Your task to perform on an android device: move a message to another label in the gmail app Image 0: 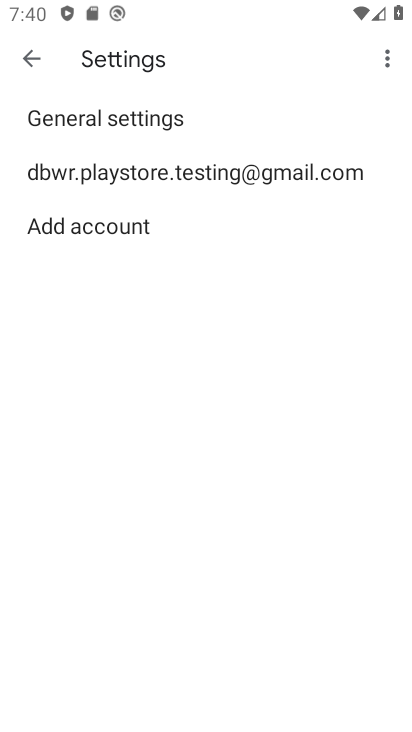
Step 0: click (36, 55)
Your task to perform on an android device: move a message to another label in the gmail app Image 1: 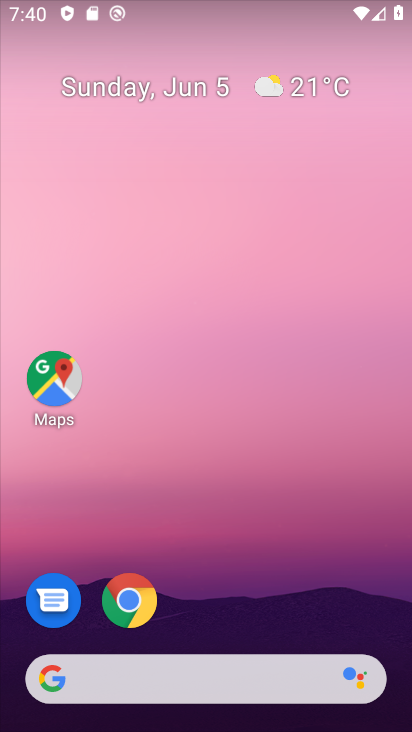
Step 1: drag from (259, 522) to (326, 14)
Your task to perform on an android device: move a message to another label in the gmail app Image 2: 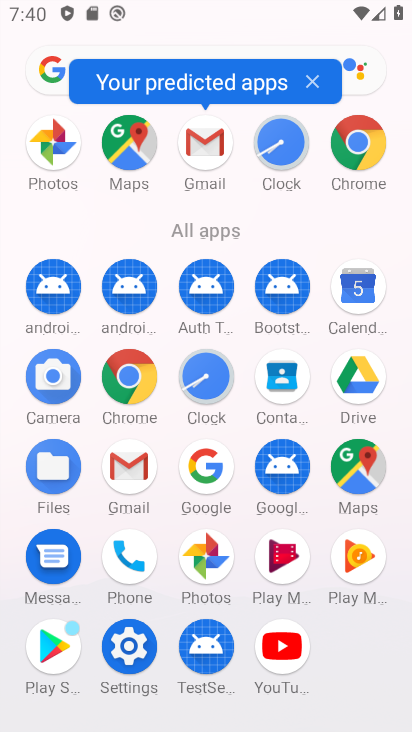
Step 2: click (209, 135)
Your task to perform on an android device: move a message to another label in the gmail app Image 3: 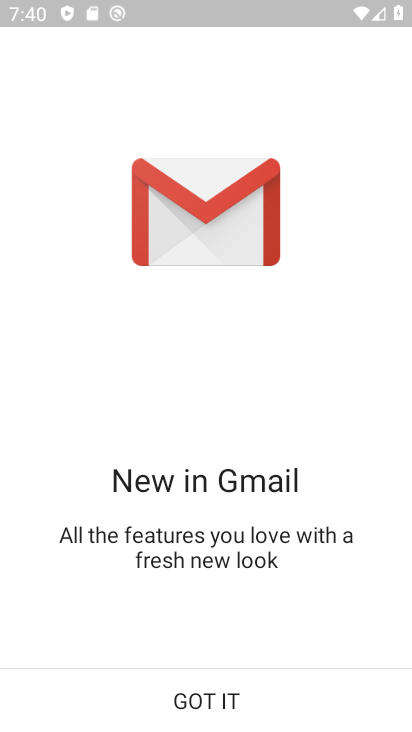
Step 3: click (235, 702)
Your task to perform on an android device: move a message to another label in the gmail app Image 4: 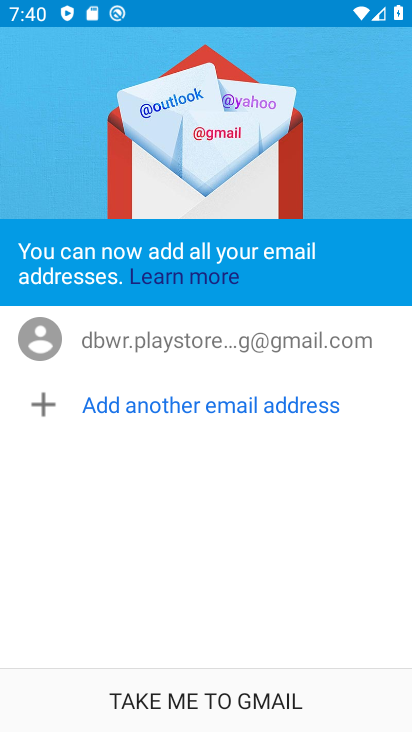
Step 4: click (235, 699)
Your task to perform on an android device: move a message to another label in the gmail app Image 5: 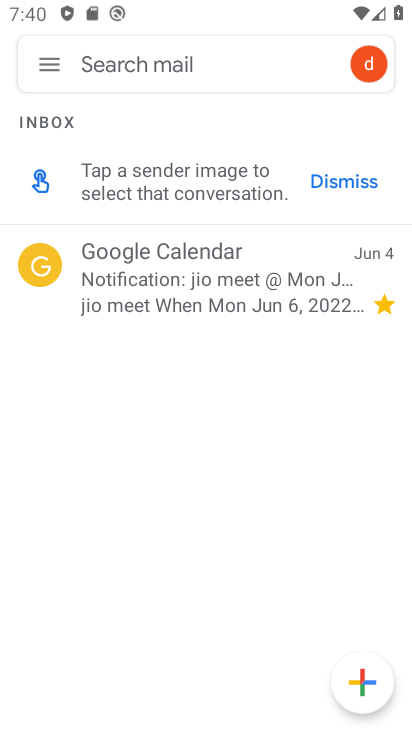
Step 5: click (231, 267)
Your task to perform on an android device: move a message to another label in the gmail app Image 6: 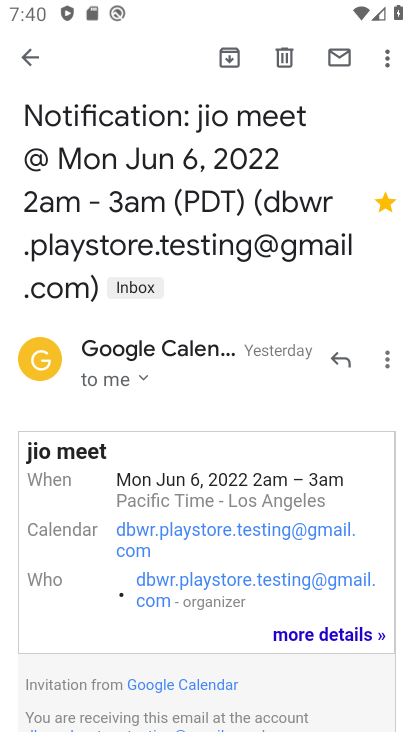
Step 6: click (381, 53)
Your task to perform on an android device: move a message to another label in the gmail app Image 7: 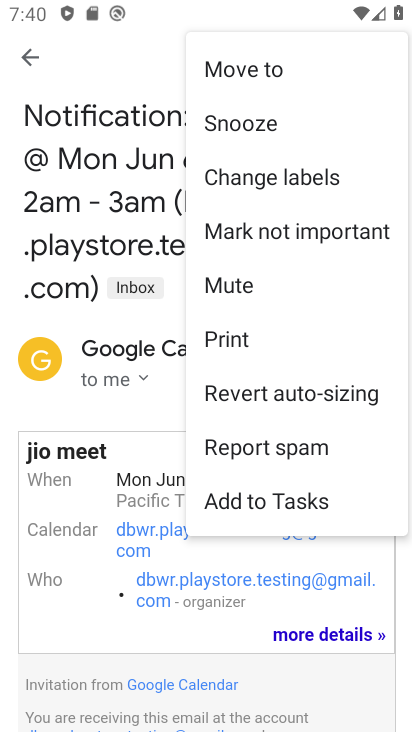
Step 7: click (325, 177)
Your task to perform on an android device: move a message to another label in the gmail app Image 8: 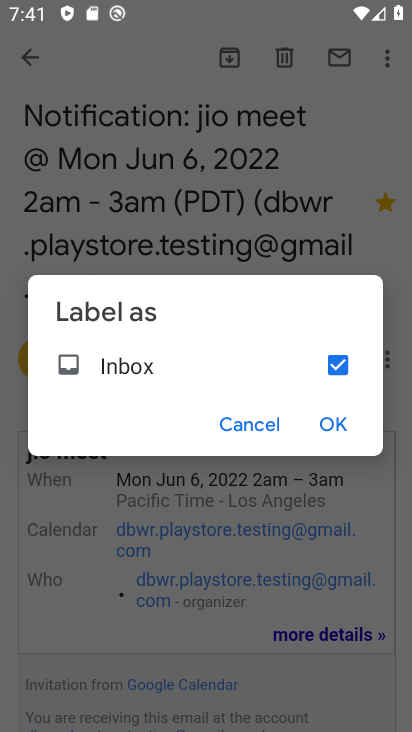
Step 8: click (336, 369)
Your task to perform on an android device: move a message to another label in the gmail app Image 9: 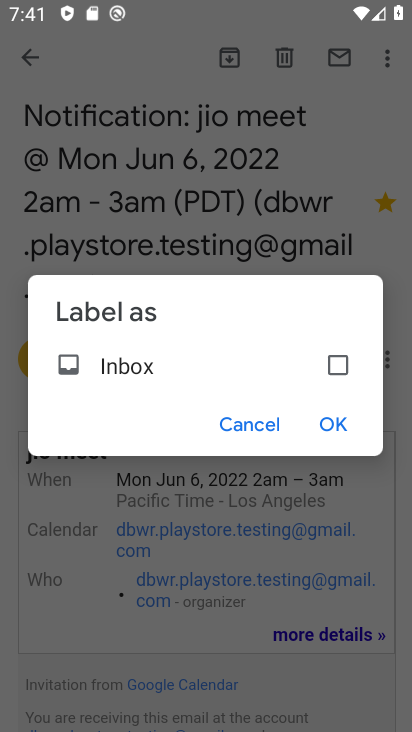
Step 9: click (338, 422)
Your task to perform on an android device: move a message to another label in the gmail app Image 10: 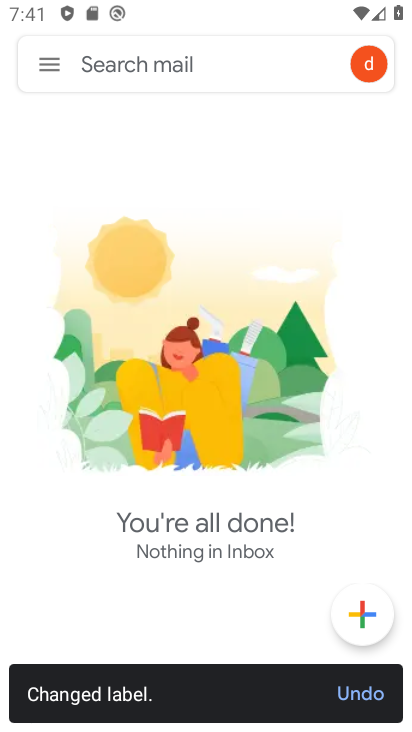
Step 10: task complete